Your task to perform on an android device: Open sound settings Image 0: 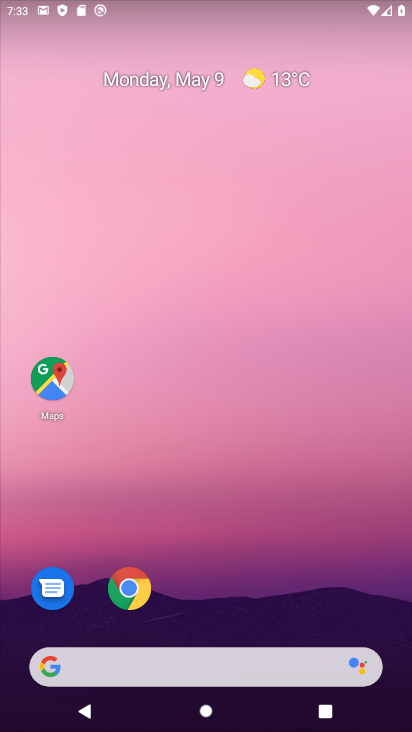
Step 0: drag from (192, 624) to (226, 46)
Your task to perform on an android device: Open sound settings Image 1: 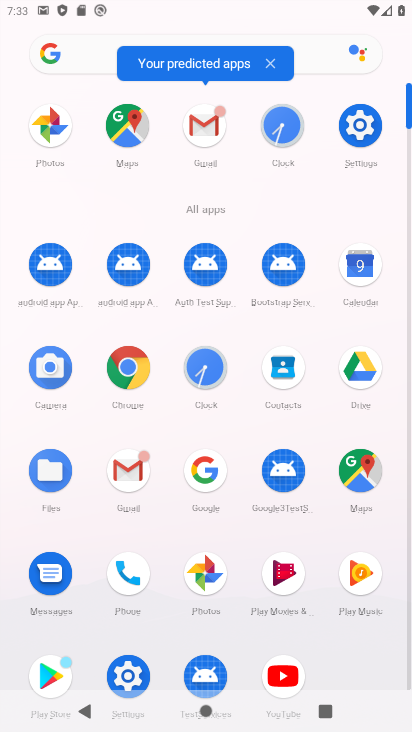
Step 1: click (347, 119)
Your task to perform on an android device: Open sound settings Image 2: 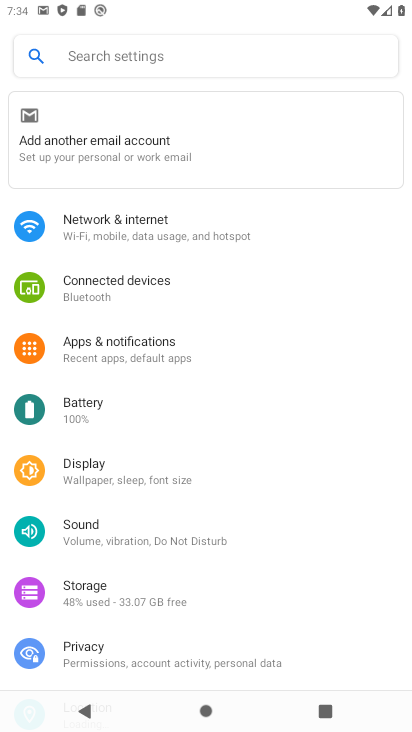
Step 2: click (164, 530)
Your task to perform on an android device: Open sound settings Image 3: 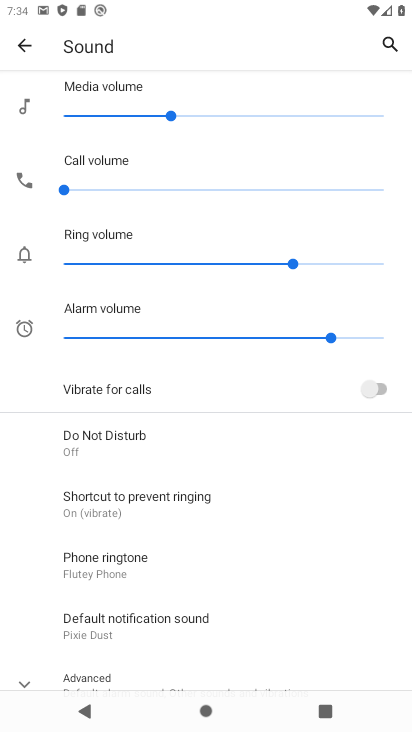
Step 3: task complete